Your task to perform on an android device: When is my next appointment? Image 0: 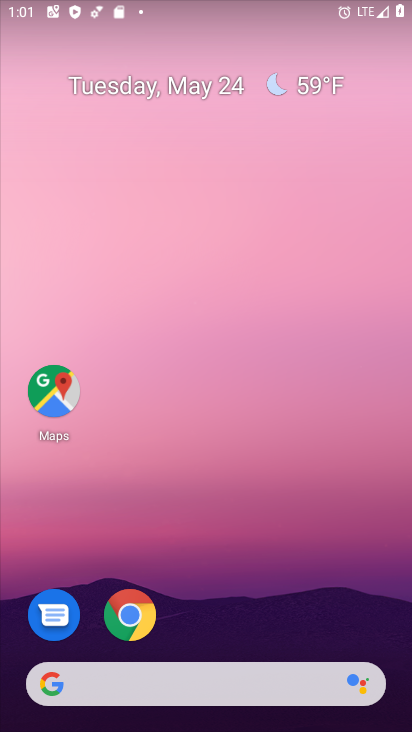
Step 0: drag from (268, 563) to (267, 35)
Your task to perform on an android device: When is my next appointment? Image 1: 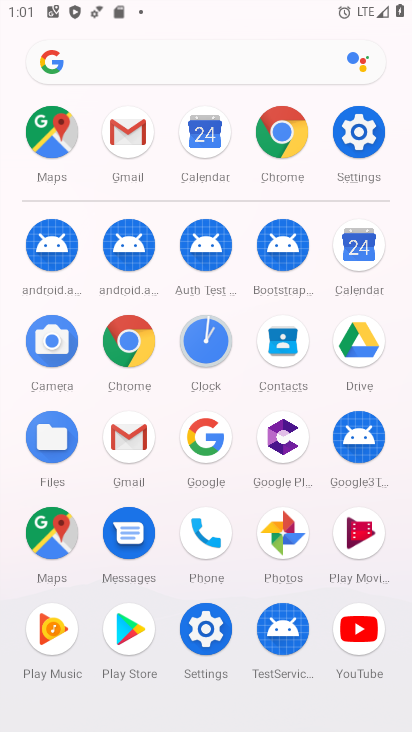
Step 1: drag from (12, 567) to (10, 160)
Your task to perform on an android device: When is my next appointment? Image 2: 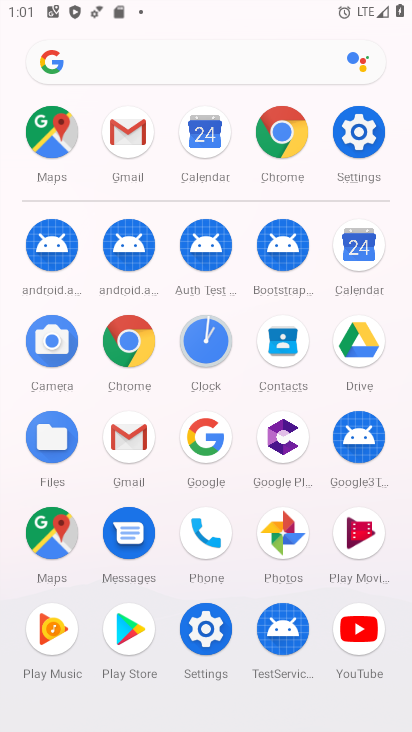
Step 2: click (356, 239)
Your task to perform on an android device: When is my next appointment? Image 3: 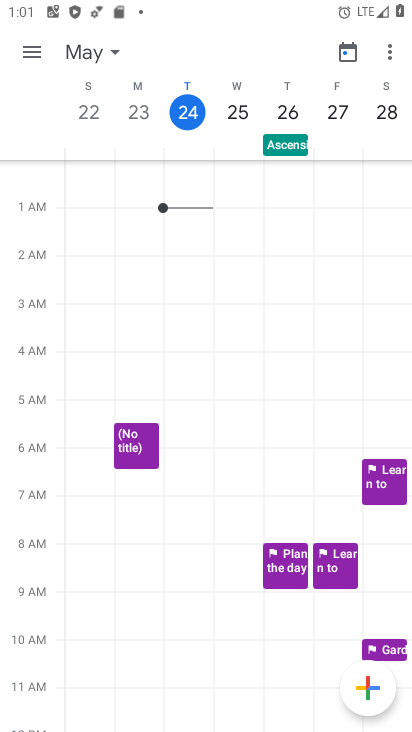
Step 3: click (39, 43)
Your task to perform on an android device: When is my next appointment? Image 4: 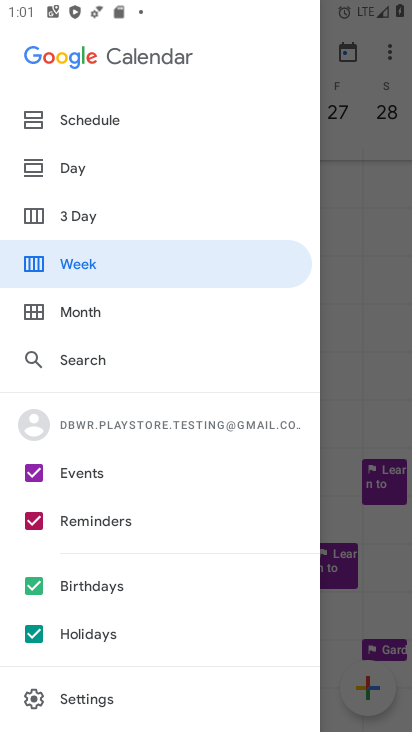
Step 4: click (375, 163)
Your task to perform on an android device: When is my next appointment? Image 5: 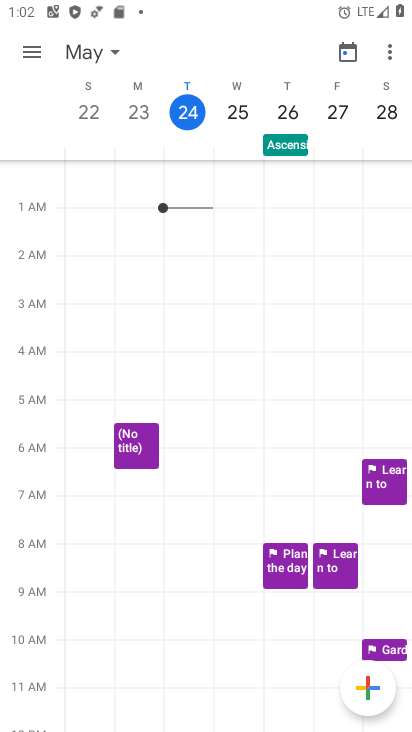
Step 5: click (37, 47)
Your task to perform on an android device: When is my next appointment? Image 6: 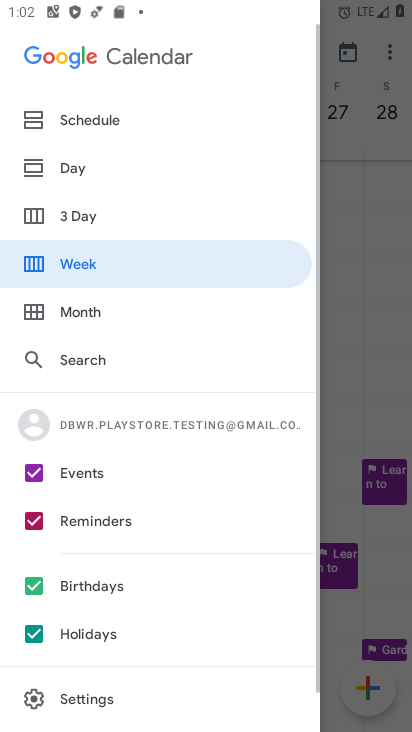
Step 6: click (113, 123)
Your task to perform on an android device: When is my next appointment? Image 7: 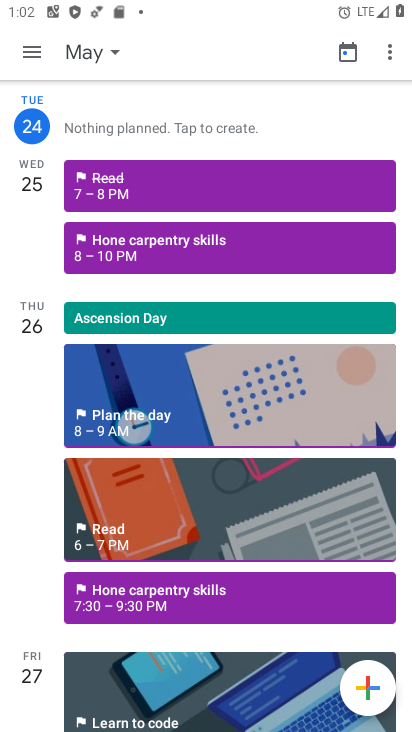
Step 7: task complete